Your task to perform on an android device: When is my next meeting? Image 0: 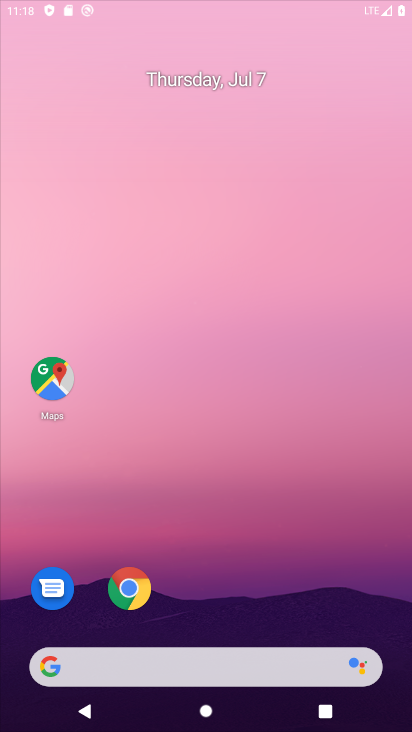
Step 0: drag from (292, 538) to (275, 50)
Your task to perform on an android device: When is my next meeting? Image 1: 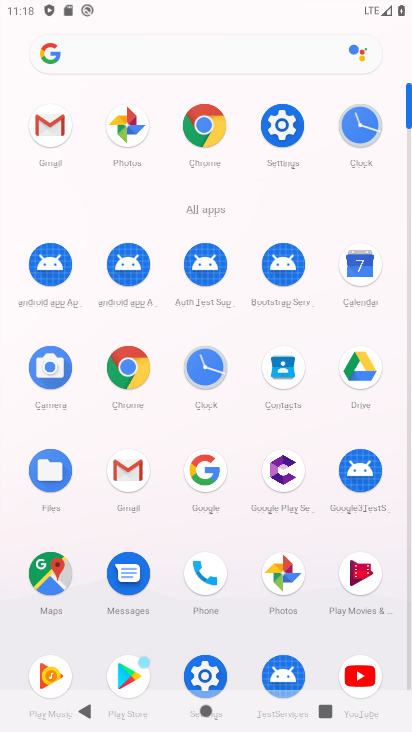
Step 1: click (274, 119)
Your task to perform on an android device: When is my next meeting? Image 2: 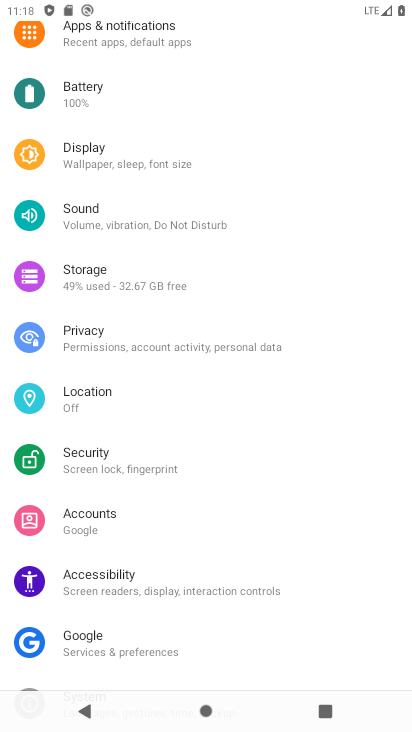
Step 2: press home button
Your task to perform on an android device: When is my next meeting? Image 3: 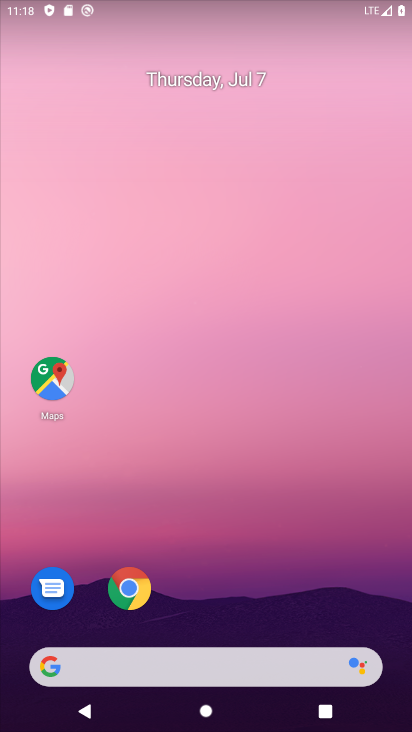
Step 3: drag from (288, 576) to (227, 0)
Your task to perform on an android device: When is my next meeting? Image 4: 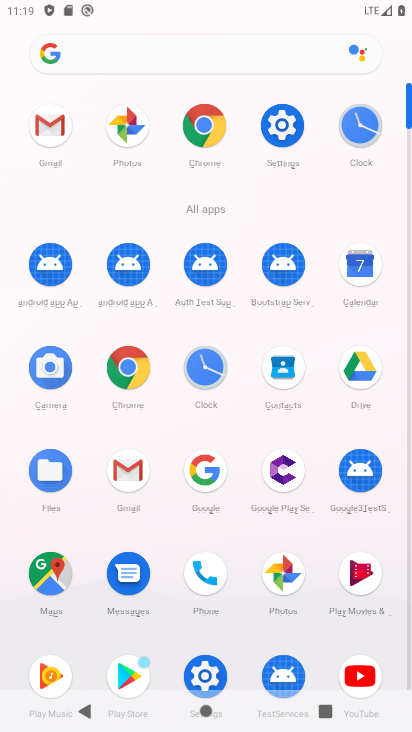
Step 4: click (369, 262)
Your task to perform on an android device: When is my next meeting? Image 5: 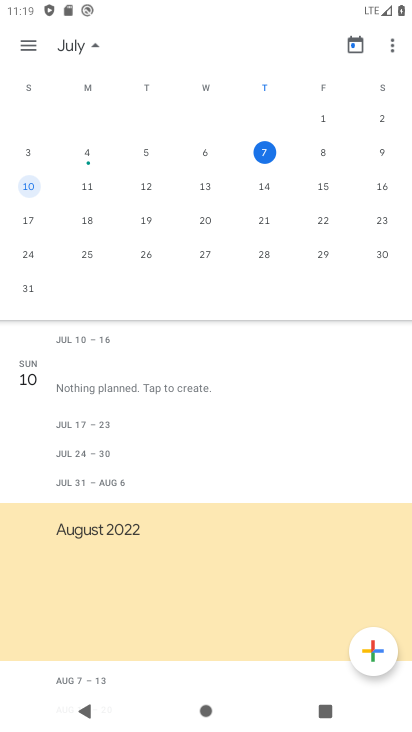
Step 5: click (268, 161)
Your task to perform on an android device: When is my next meeting? Image 6: 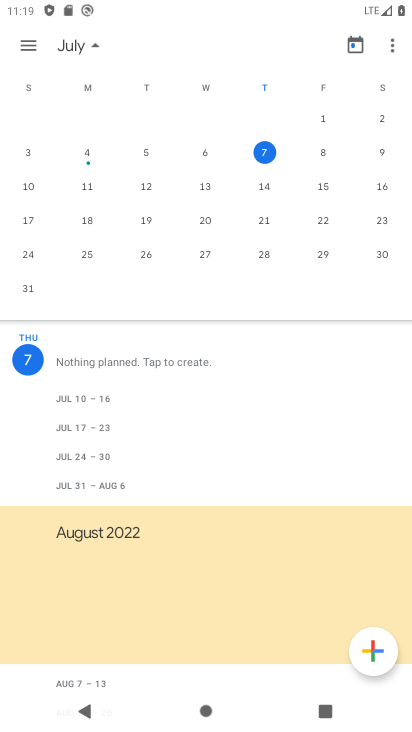
Step 6: task complete